Your task to perform on an android device: turn on improve location accuracy Image 0: 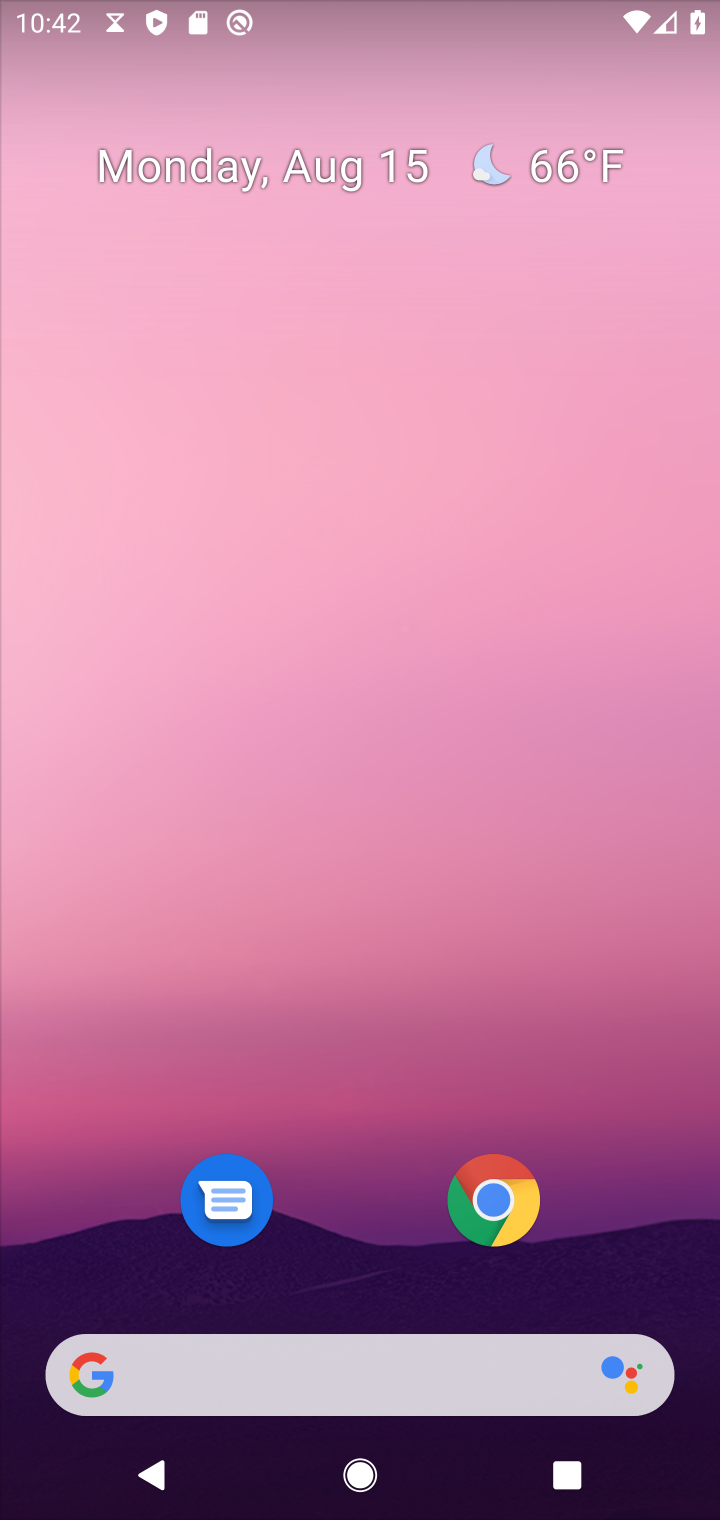
Step 0: drag from (378, 226) to (408, 28)
Your task to perform on an android device: turn on improve location accuracy Image 1: 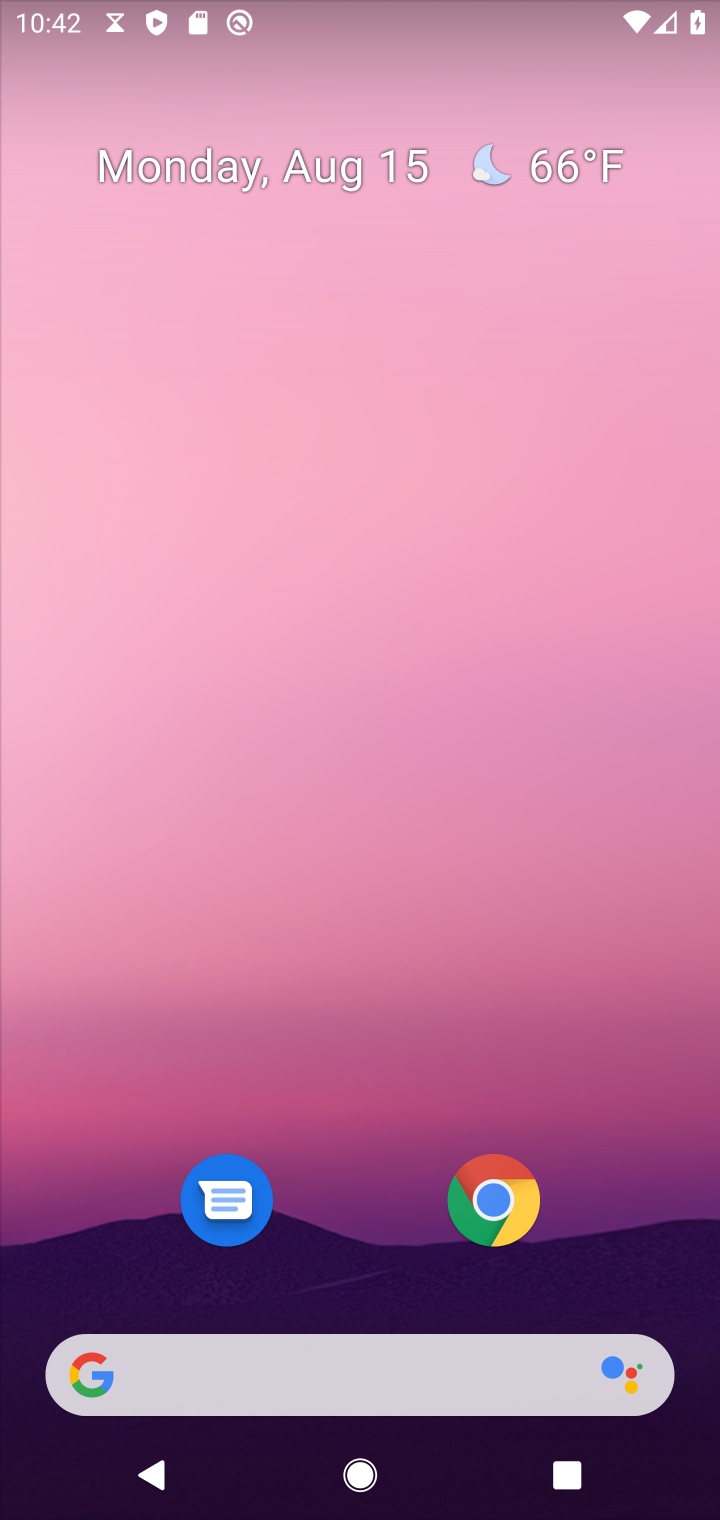
Step 1: drag from (328, 944) to (409, 151)
Your task to perform on an android device: turn on improve location accuracy Image 2: 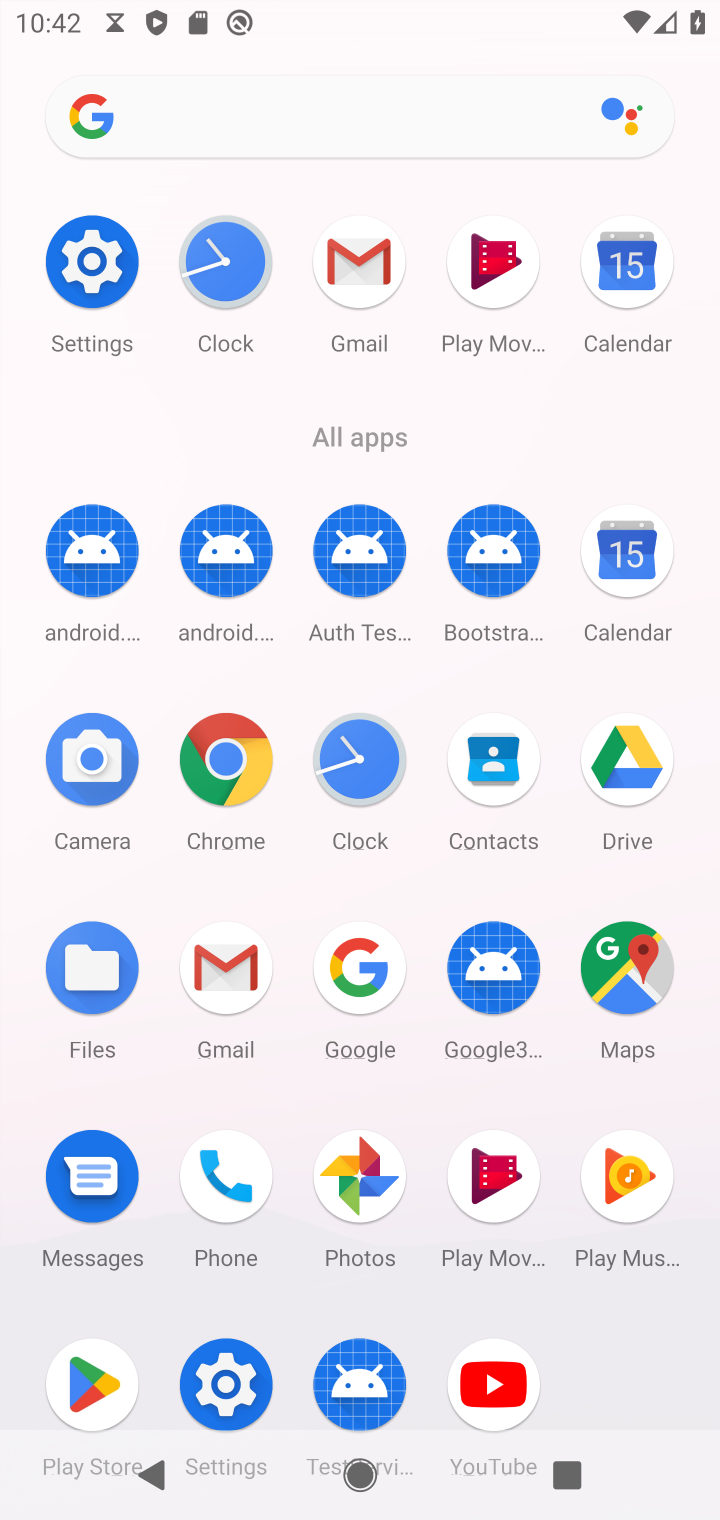
Step 2: click (218, 1382)
Your task to perform on an android device: turn on improve location accuracy Image 3: 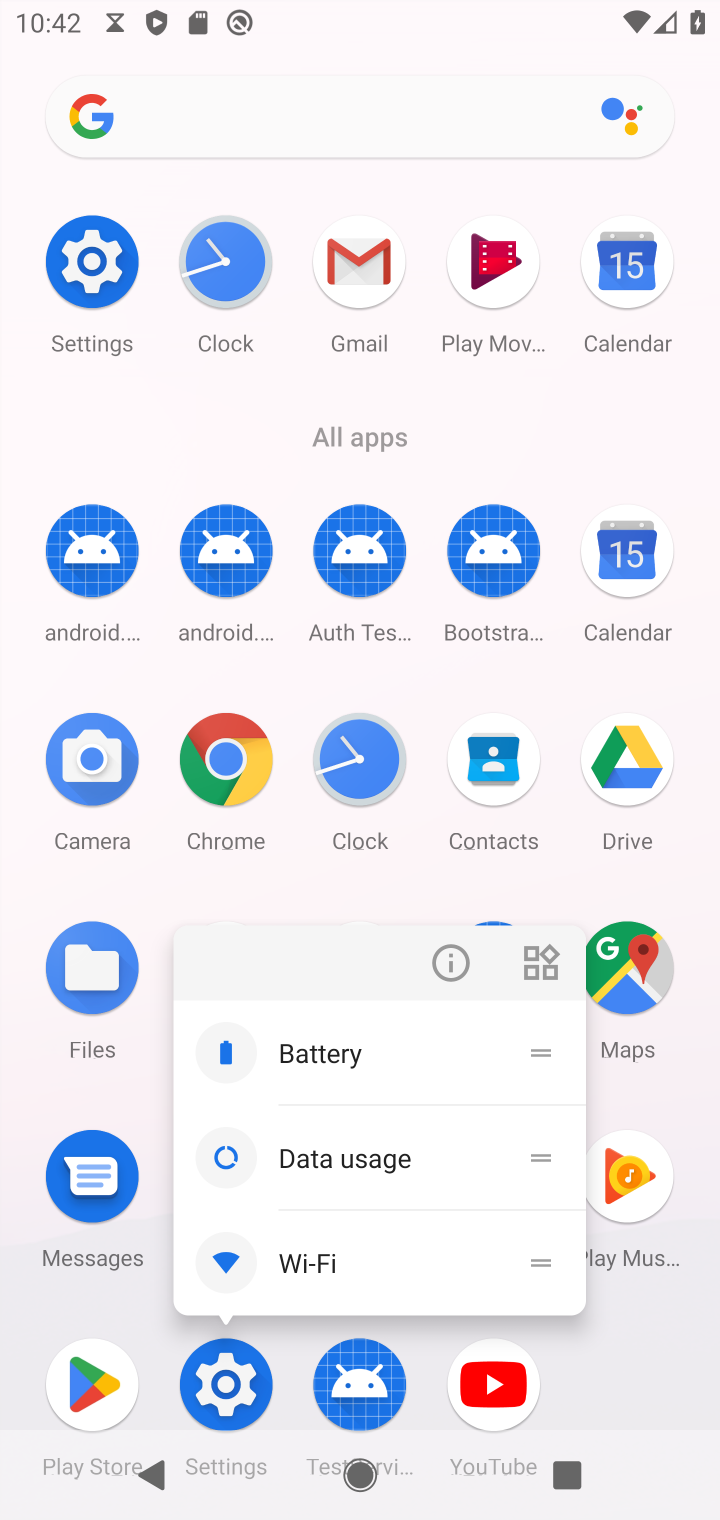
Step 3: click (218, 1382)
Your task to perform on an android device: turn on improve location accuracy Image 4: 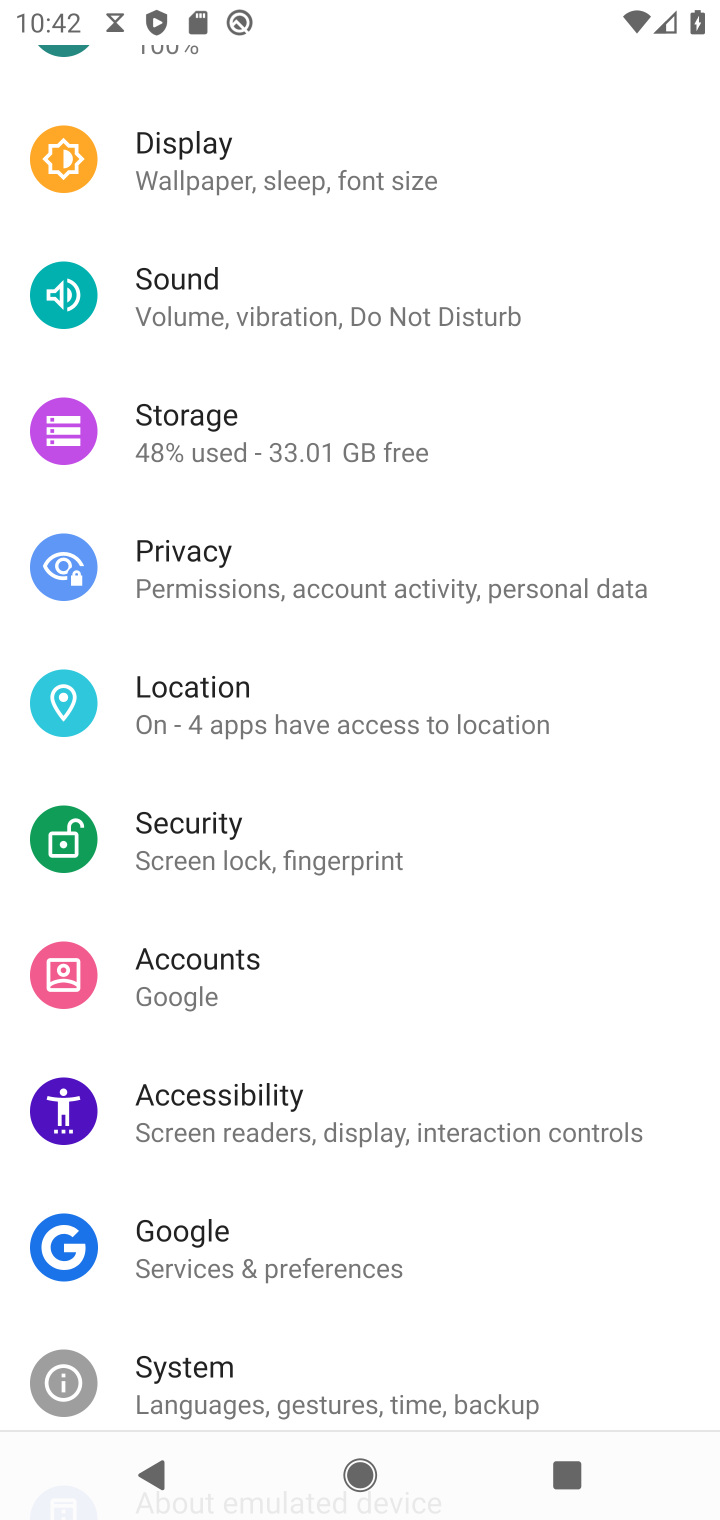
Step 4: click (216, 1388)
Your task to perform on an android device: turn on improve location accuracy Image 5: 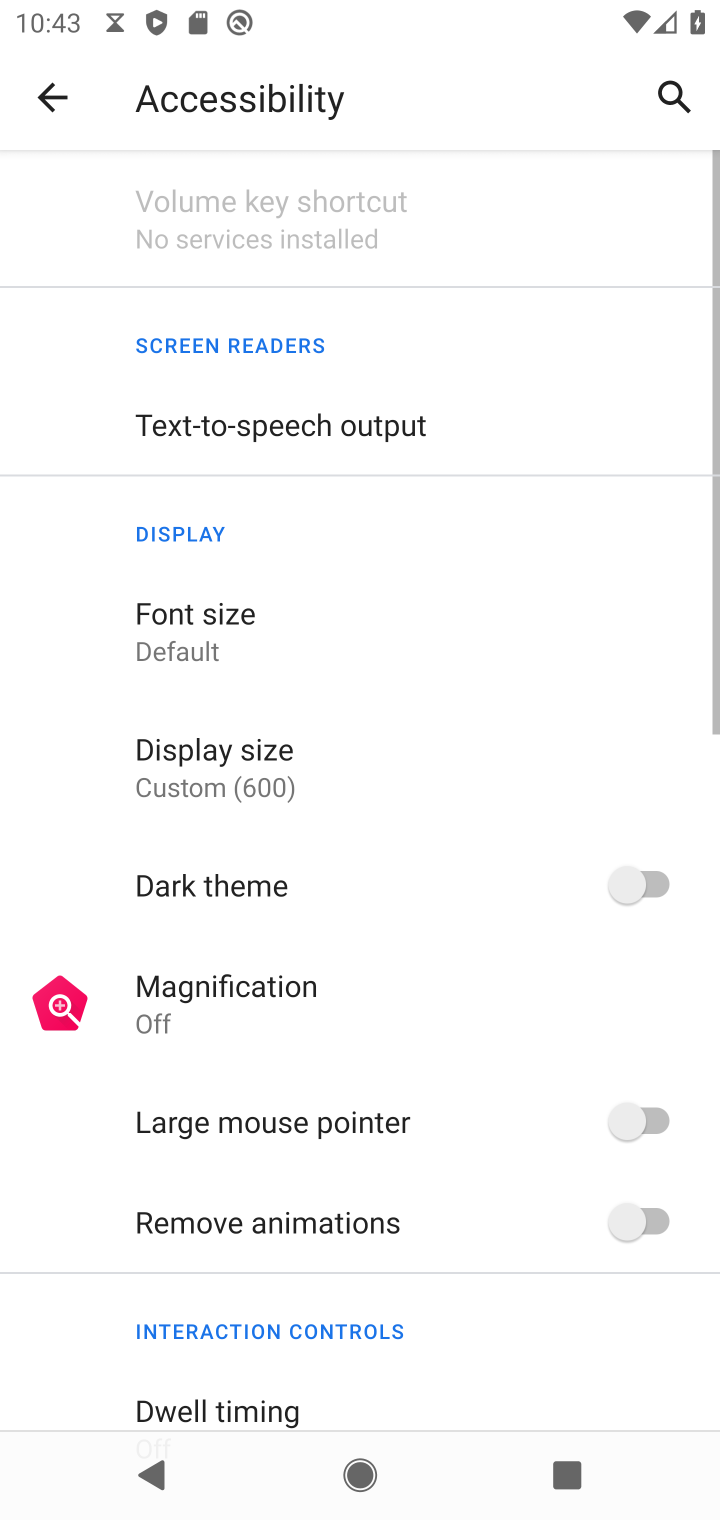
Step 5: click (47, 80)
Your task to perform on an android device: turn on improve location accuracy Image 6: 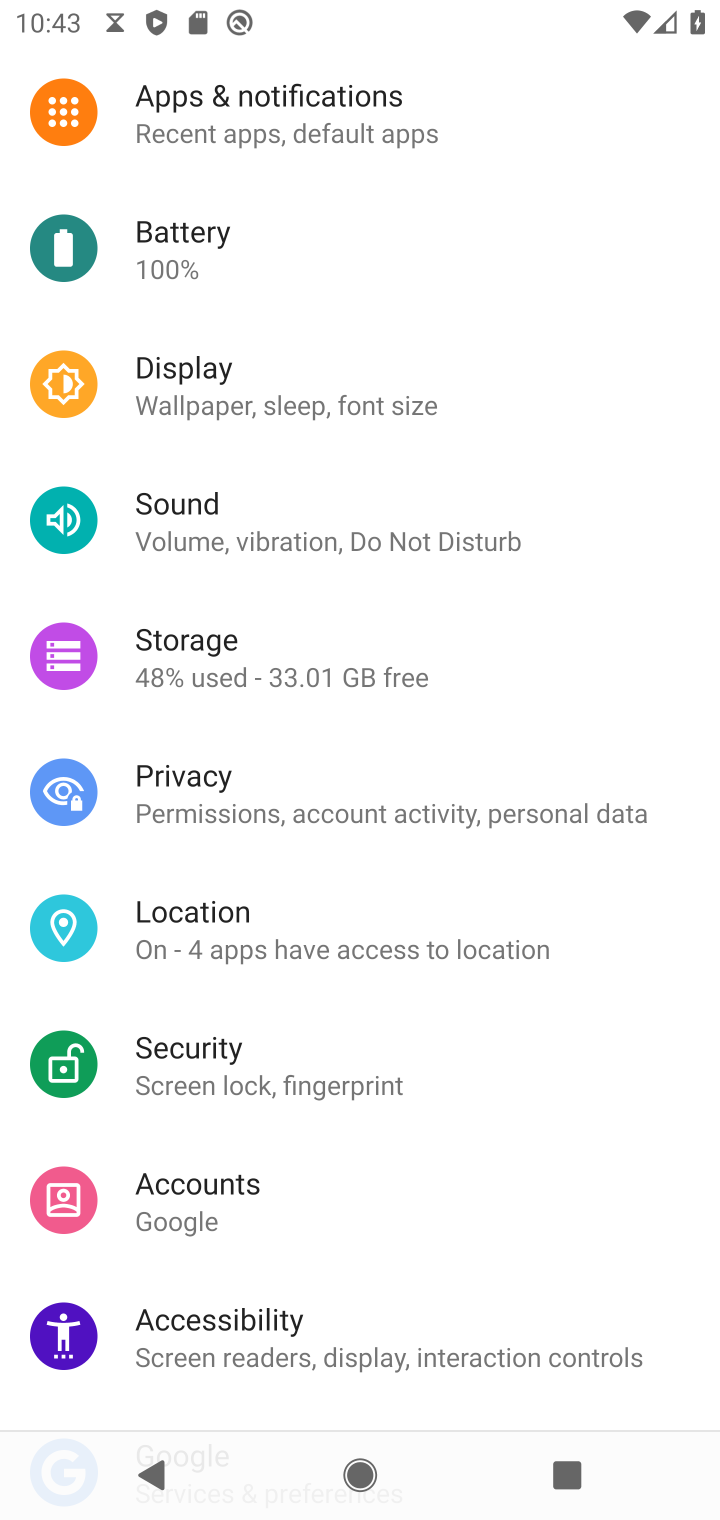
Step 6: click (240, 937)
Your task to perform on an android device: turn on improve location accuracy Image 7: 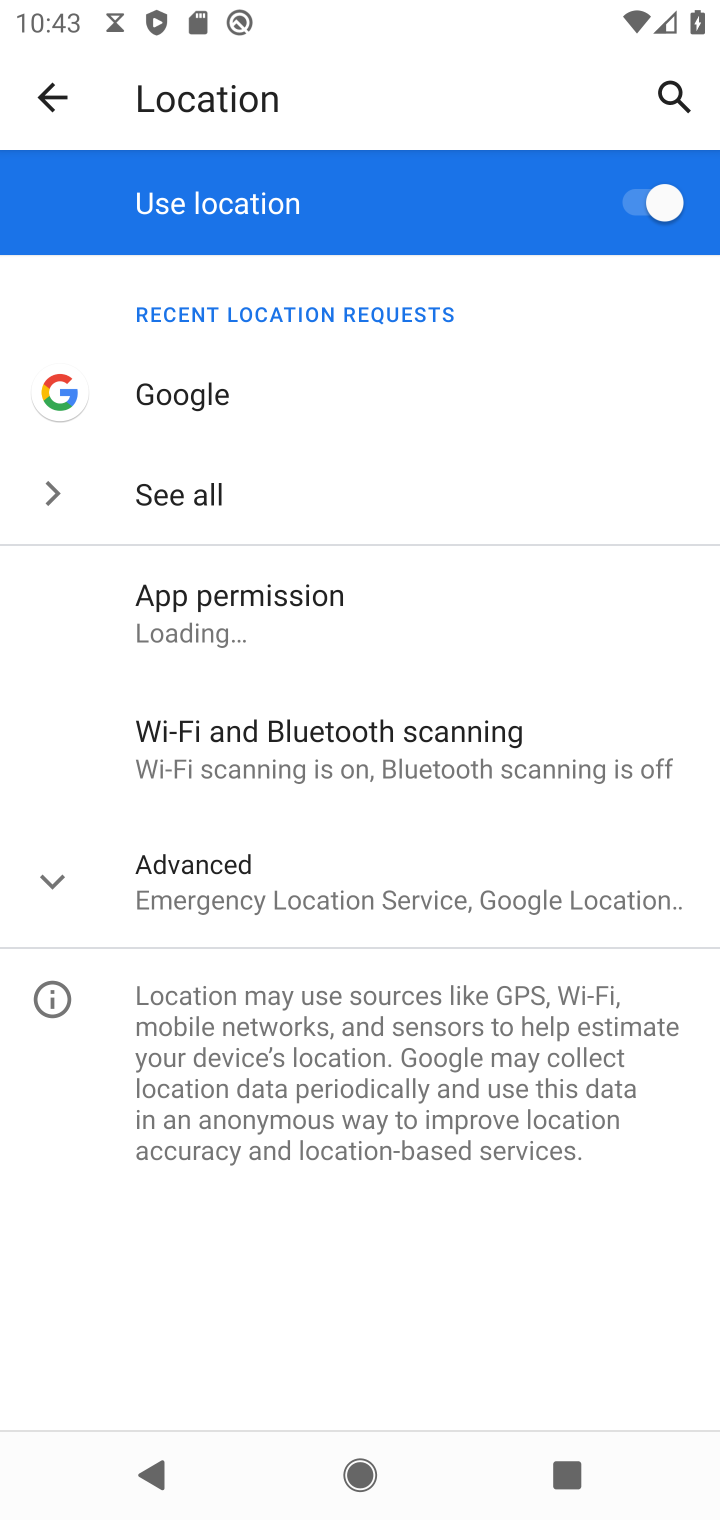
Step 7: click (272, 881)
Your task to perform on an android device: turn on improve location accuracy Image 8: 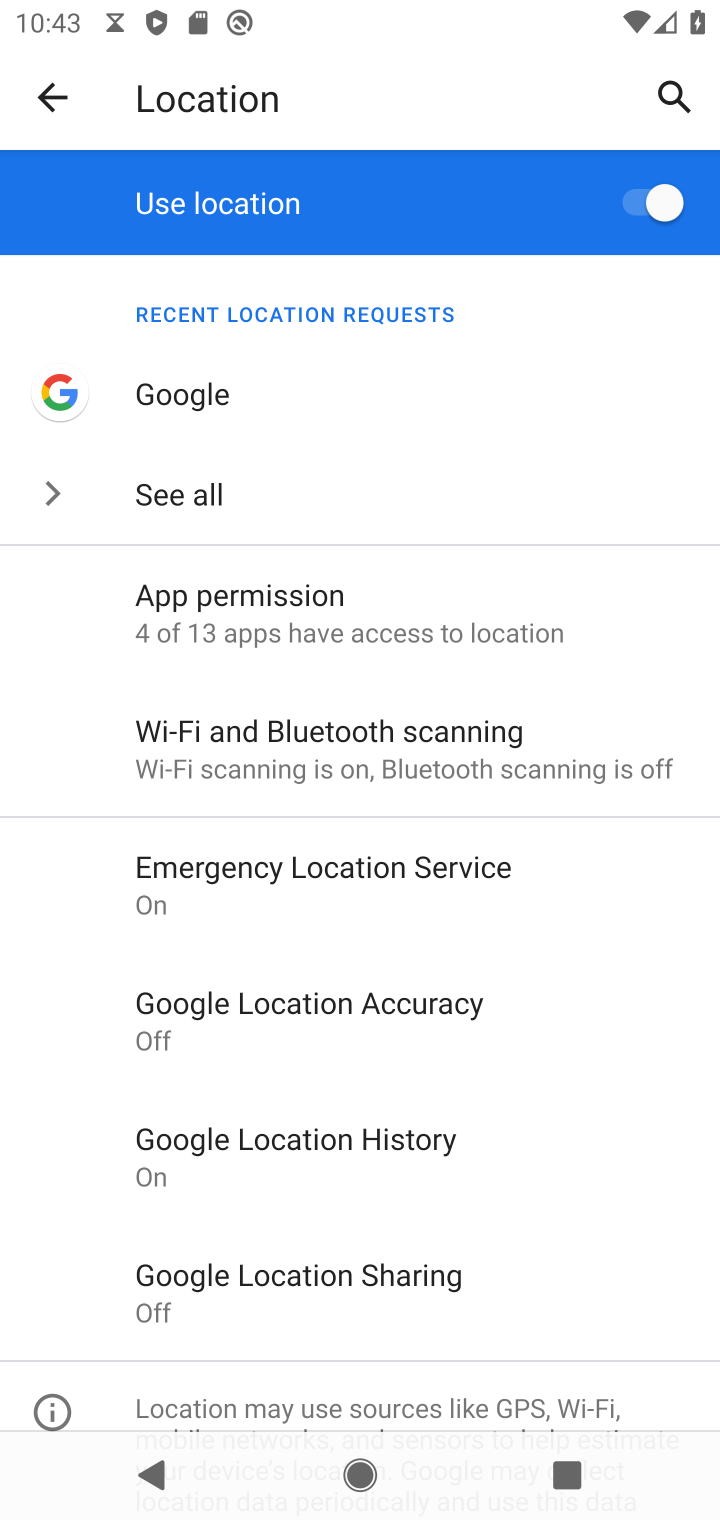
Step 8: click (297, 1018)
Your task to perform on an android device: turn on improve location accuracy Image 9: 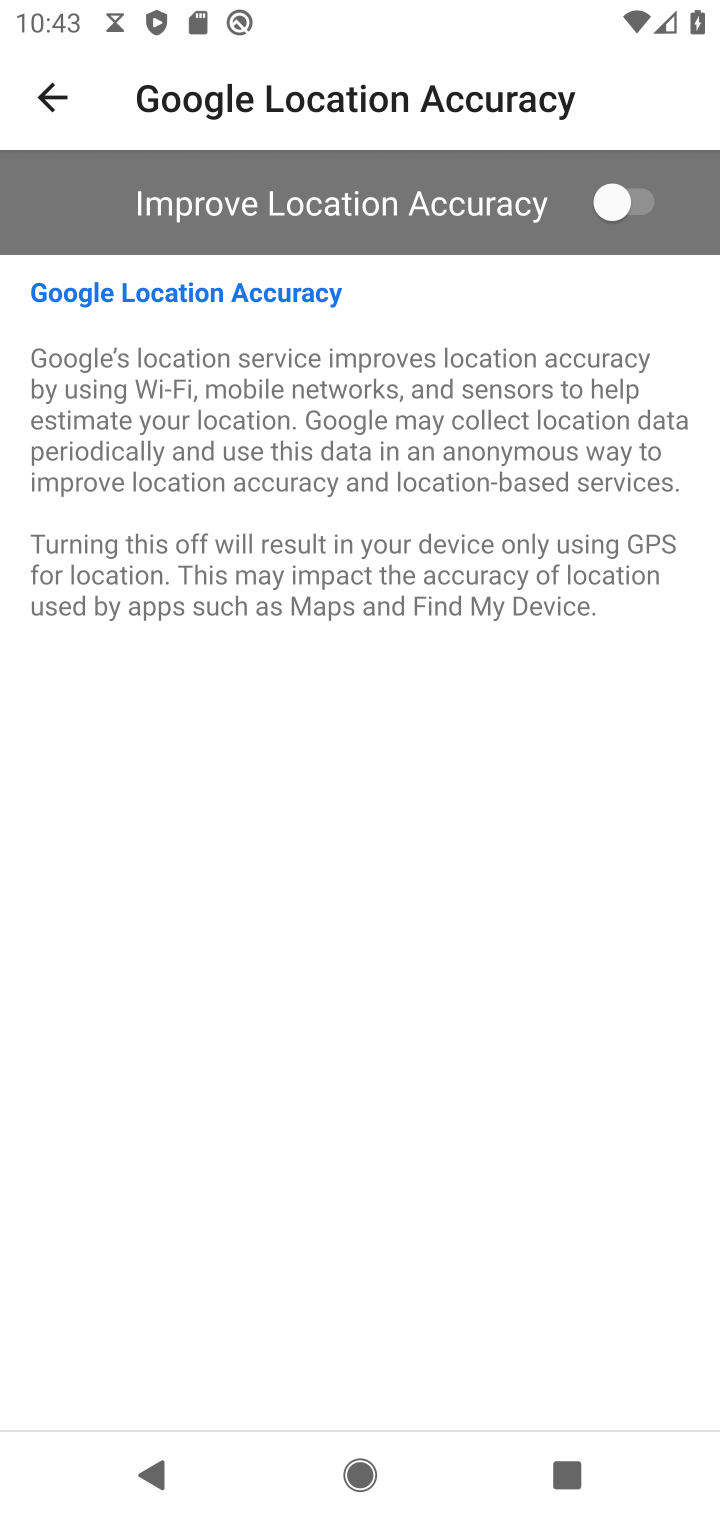
Step 9: click (663, 211)
Your task to perform on an android device: turn on improve location accuracy Image 10: 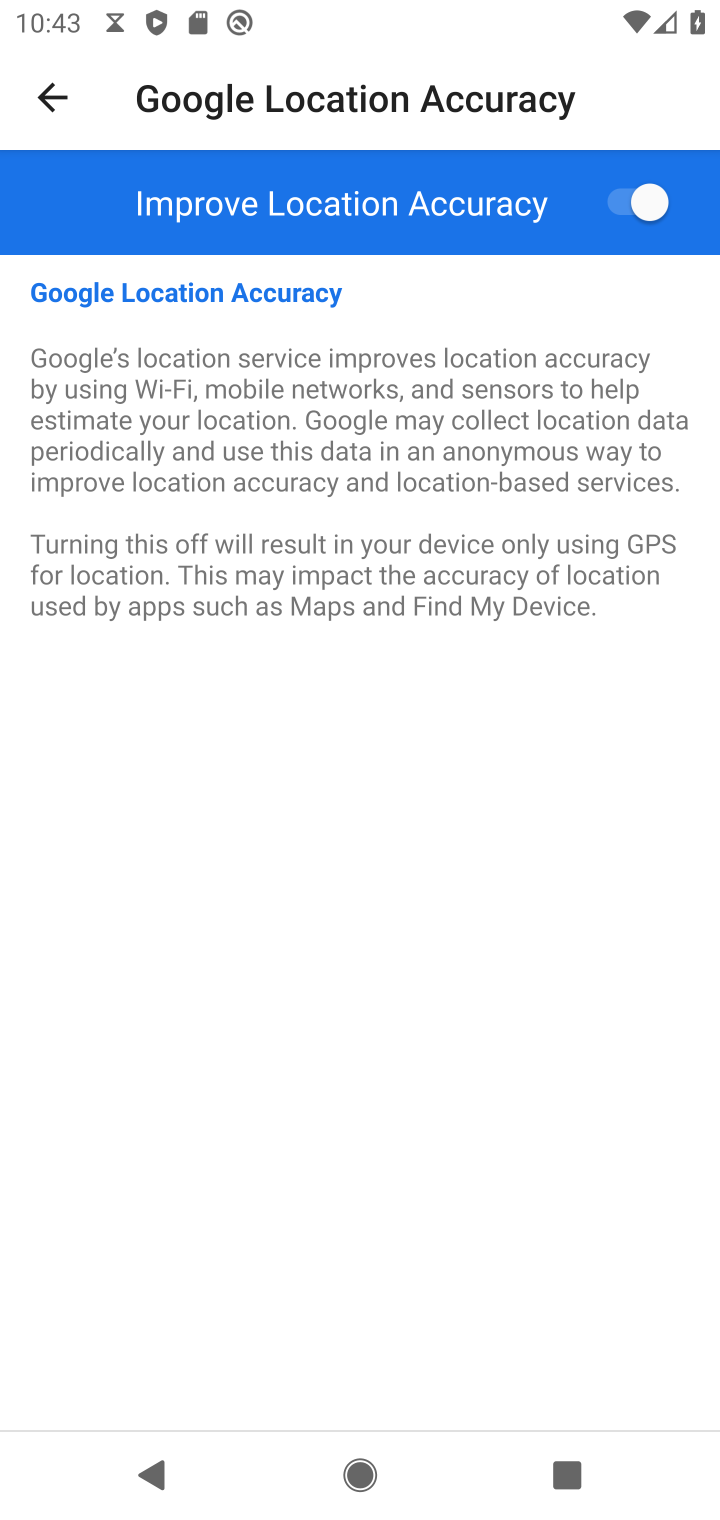
Step 10: task complete